Your task to perform on an android device: Go to Wikipedia Image 0: 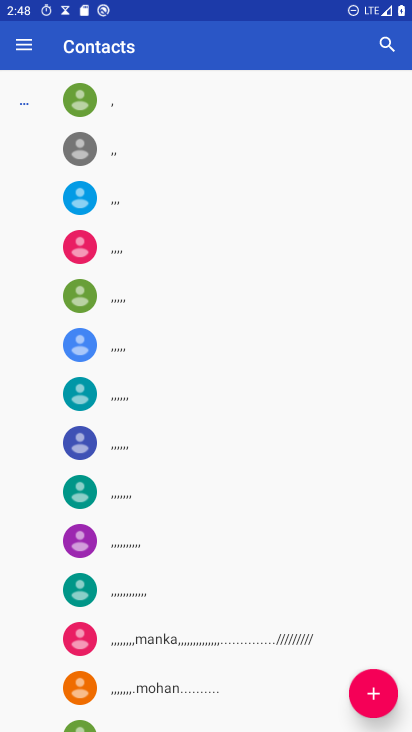
Step 0: drag from (272, 725) to (239, 244)
Your task to perform on an android device: Go to Wikipedia Image 1: 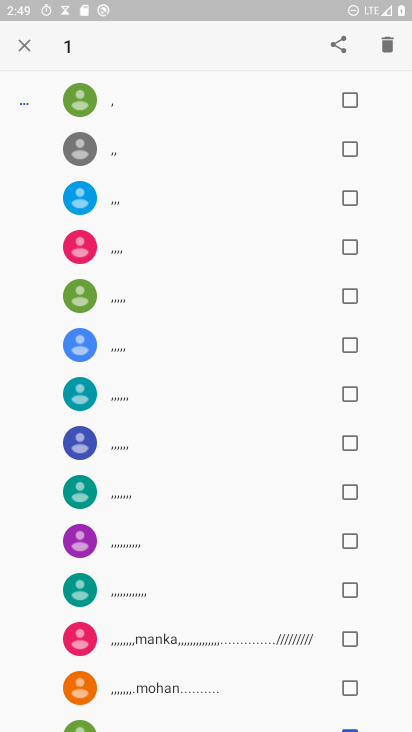
Step 1: press home button
Your task to perform on an android device: Go to Wikipedia Image 2: 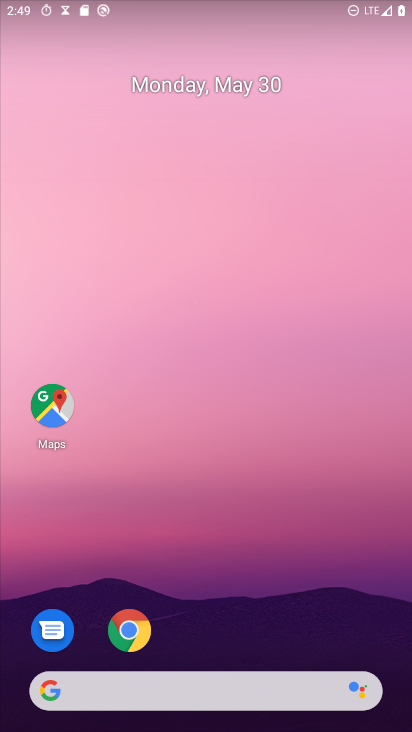
Step 2: drag from (213, 710) to (261, 205)
Your task to perform on an android device: Go to Wikipedia Image 3: 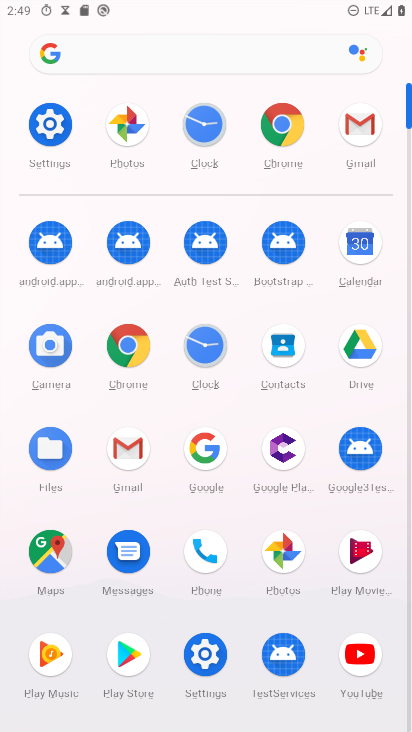
Step 3: click (278, 134)
Your task to perform on an android device: Go to Wikipedia Image 4: 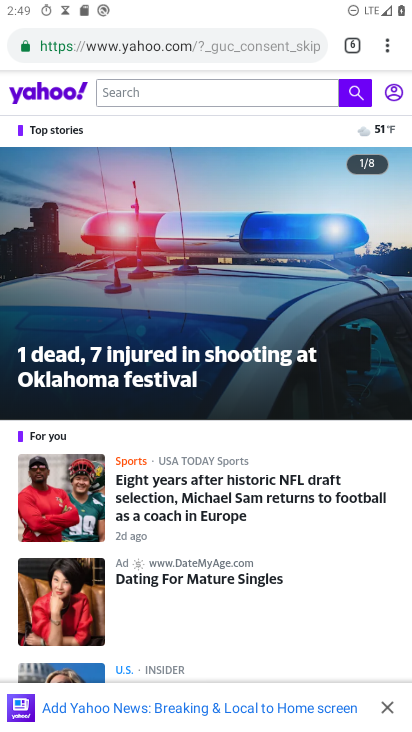
Step 4: click (347, 42)
Your task to perform on an android device: Go to Wikipedia Image 5: 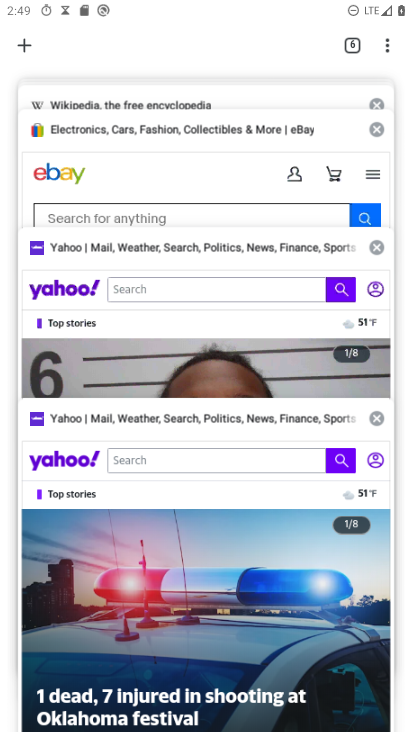
Step 5: click (25, 43)
Your task to perform on an android device: Go to Wikipedia Image 6: 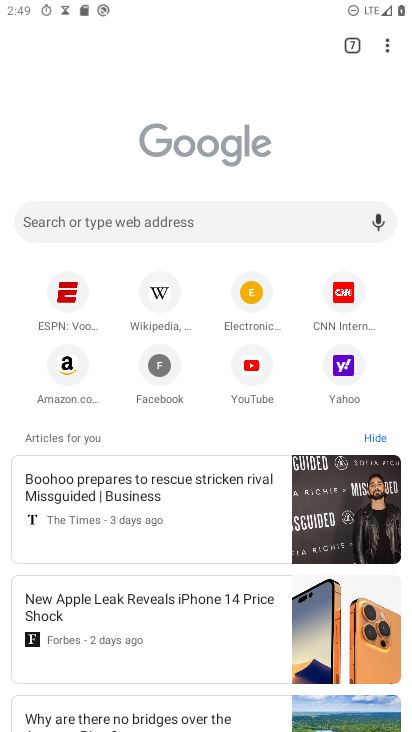
Step 6: click (158, 318)
Your task to perform on an android device: Go to Wikipedia Image 7: 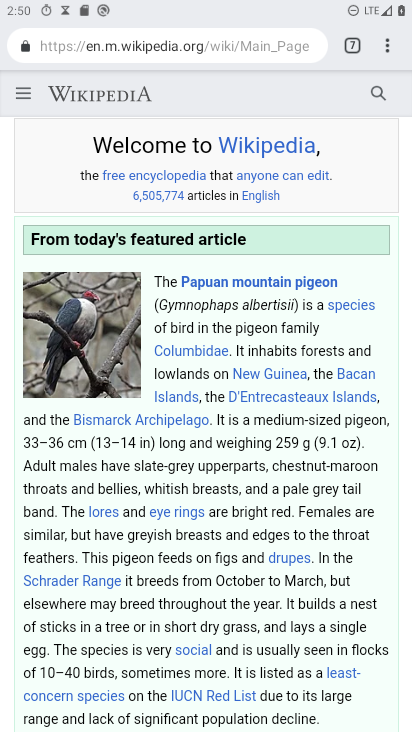
Step 7: task complete